Your task to perform on an android device: change alarm snooze length Image 0: 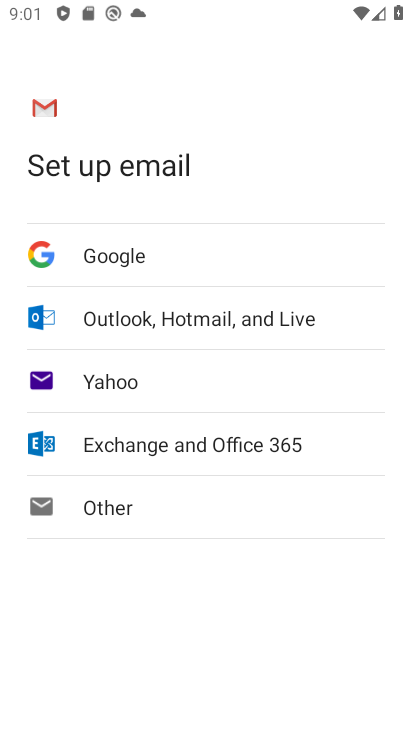
Step 0: press home button
Your task to perform on an android device: change alarm snooze length Image 1: 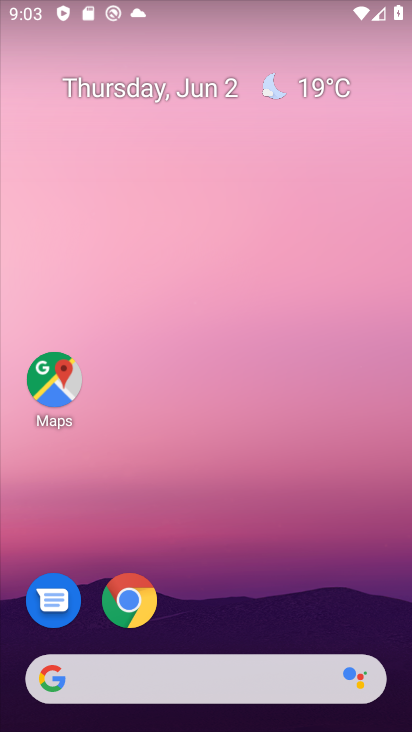
Step 1: drag from (283, 593) to (284, 233)
Your task to perform on an android device: change alarm snooze length Image 2: 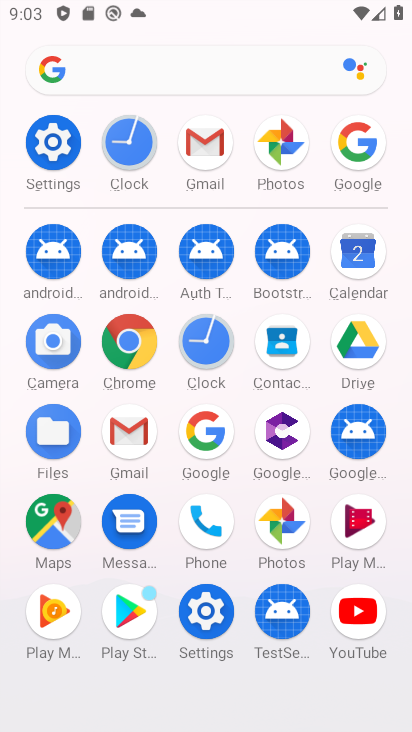
Step 2: click (190, 336)
Your task to perform on an android device: change alarm snooze length Image 3: 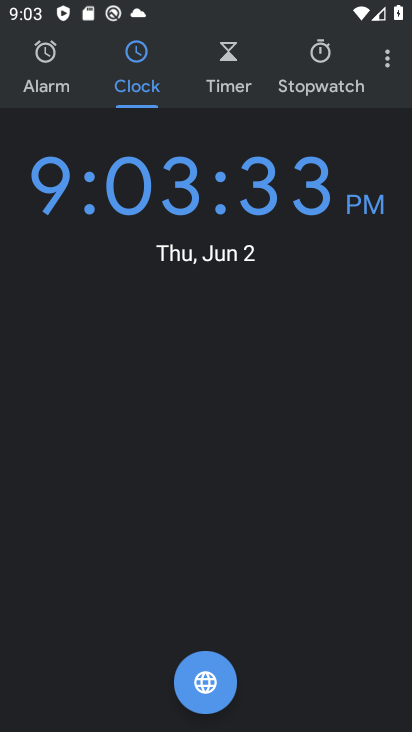
Step 3: click (387, 57)
Your task to perform on an android device: change alarm snooze length Image 4: 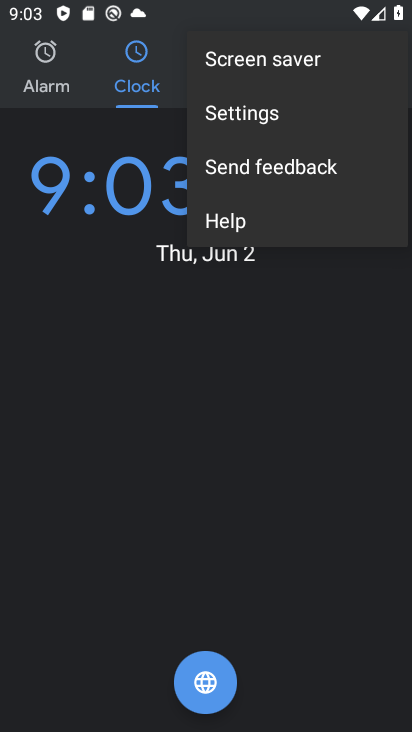
Step 4: click (276, 123)
Your task to perform on an android device: change alarm snooze length Image 5: 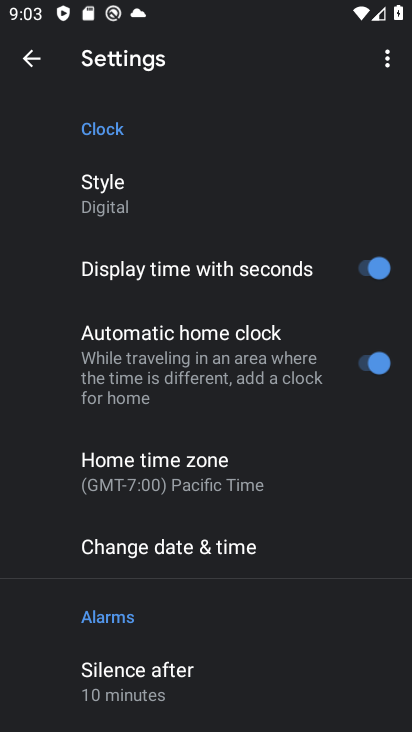
Step 5: drag from (223, 599) to (212, 265)
Your task to perform on an android device: change alarm snooze length Image 6: 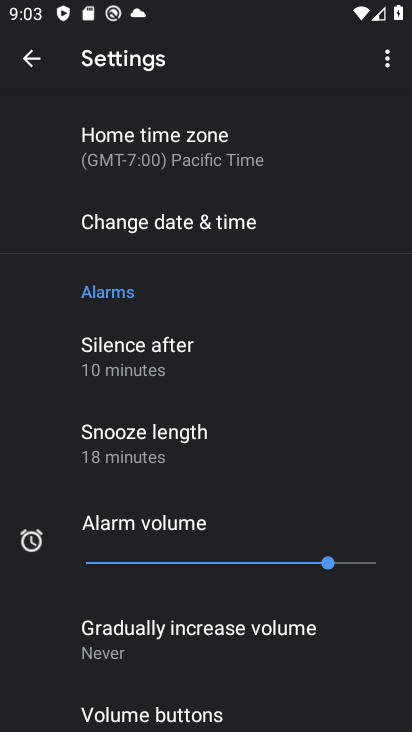
Step 6: click (179, 437)
Your task to perform on an android device: change alarm snooze length Image 7: 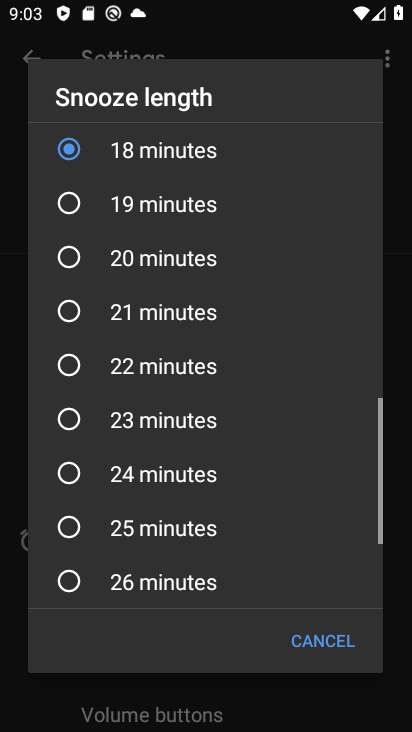
Step 7: click (169, 428)
Your task to perform on an android device: change alarm snooze length Image 8: 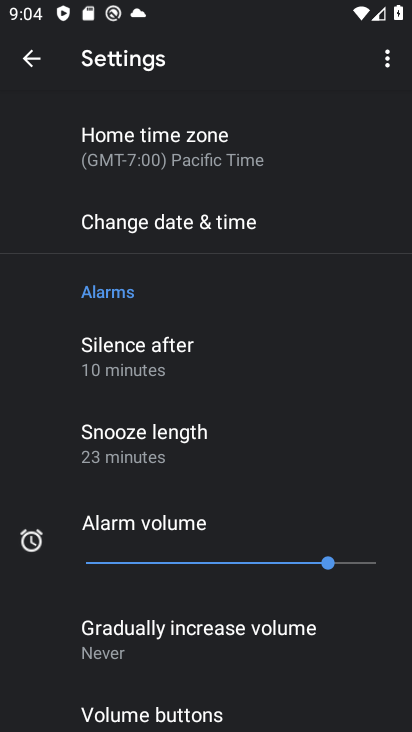
Step 8: task complete